Your task to perform on an android device: set default search engine in the chrome app Image 0: 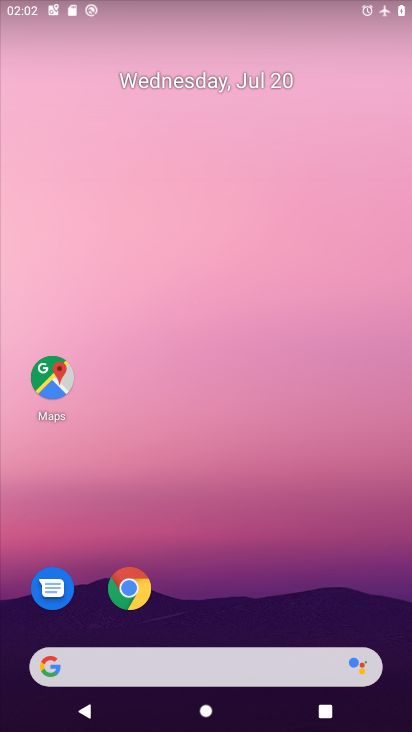
Step 0: drag from (221, 591) to (291, 119)
Your task to perform on an android device: set default search engine in the chrome app Image 1: 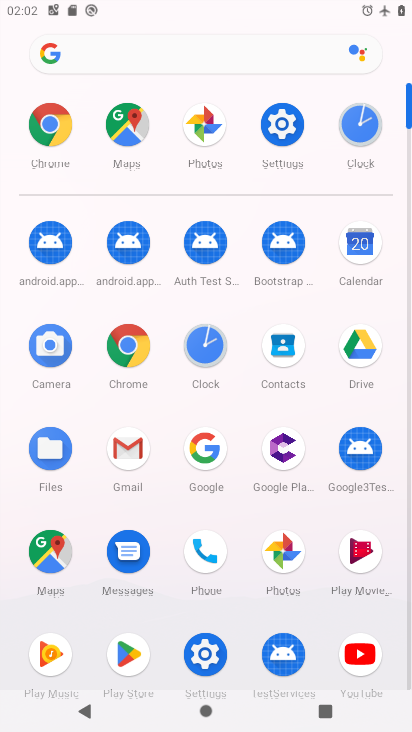
Step 1: click (61, 126)
Your task to perform on an android device: set default search engine in the chrome app Image 2: 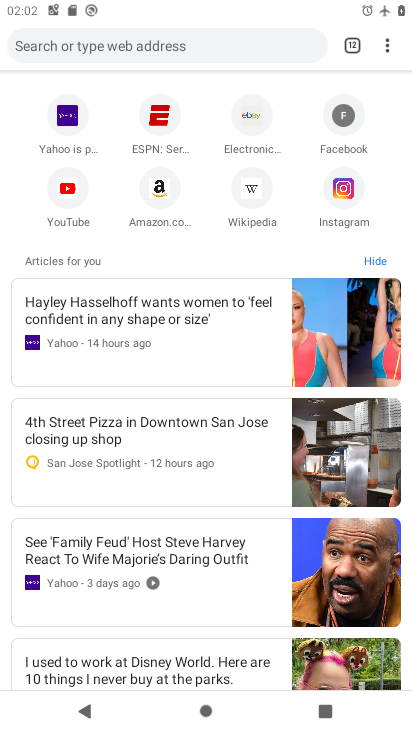
Step 2: click (395, 41)
Your task to perform on an android device: set default search engine in the chrome app Image 3: 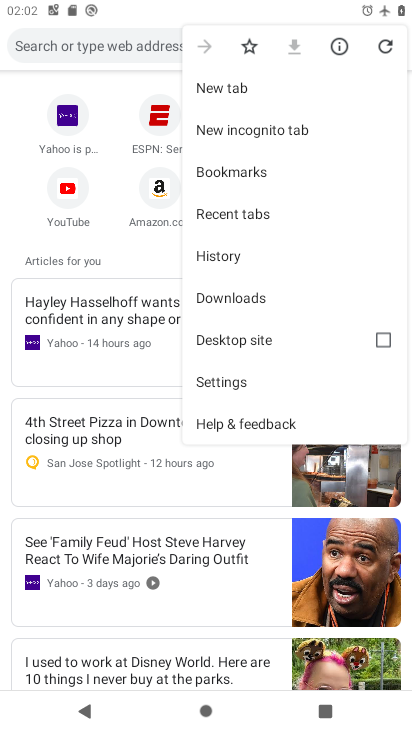
Step 3: click (238, 377)
Your task to perform on an android device: set default search engine in the chrome app Image 4: 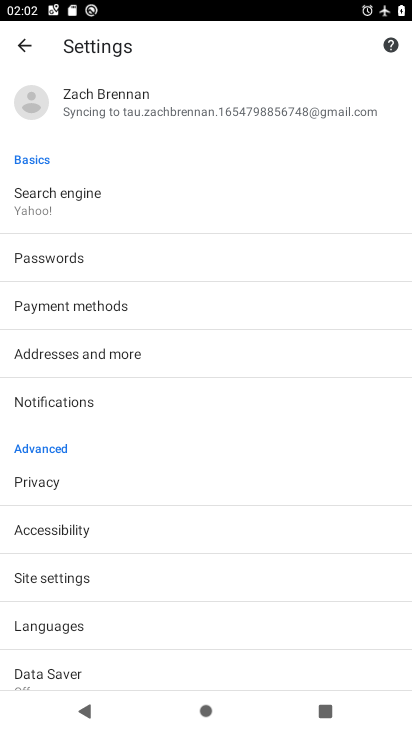
Step 4: click (91, 209)
Your task to perform on an android device: set default search engine in the chrome app Image 5: 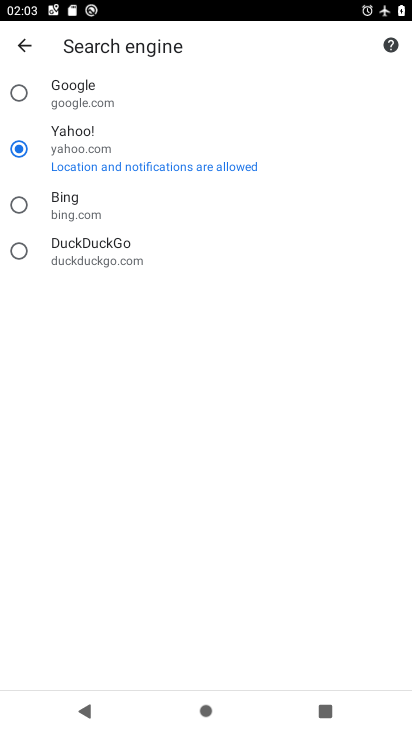
Step 5: click (65, 96)
Your task to perform on an android device: set default search engine in the chrome app Image 6: 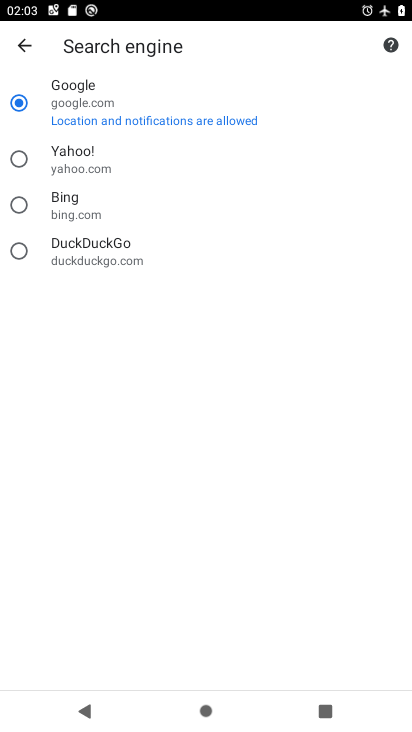
Step 6: task complete